Your task to perform on an android device: turn on wifi Image 0: 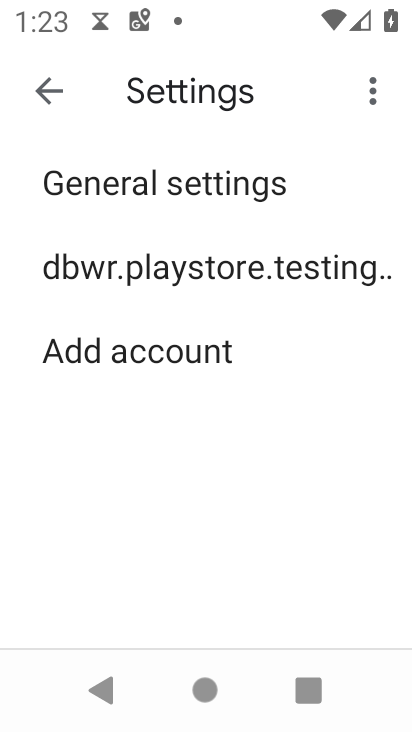
Step 0: press back button
Your task to perform on an android device: turn on wifi Image 1: 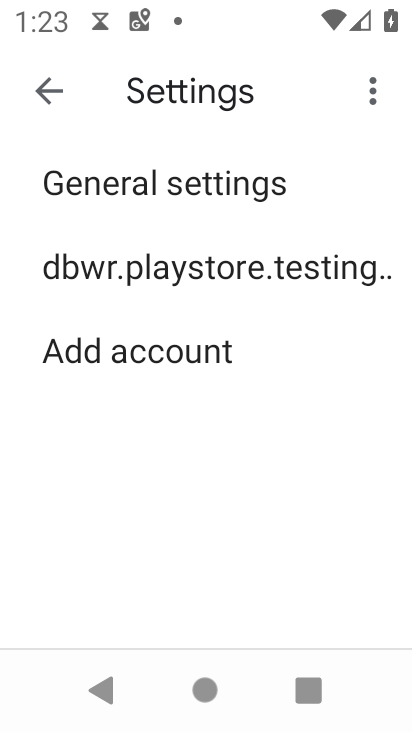
Step 1: press home button
Your task to perform on an android device: turn on wifi Image 2: 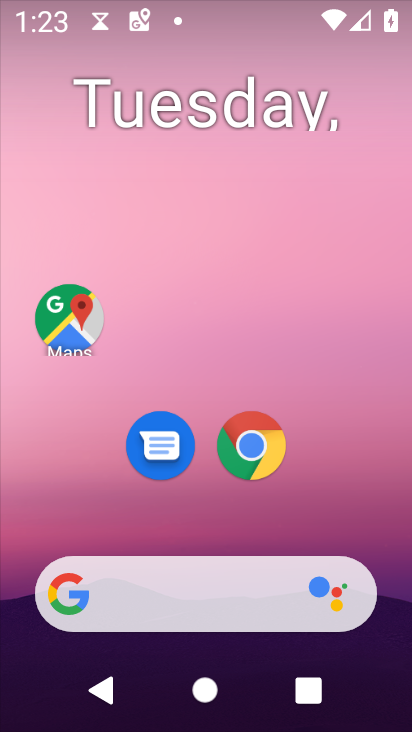
Step 2: drag from (277, 596) to (270, 25)
Your task to perform on an android device: turn on wifi Image 3: 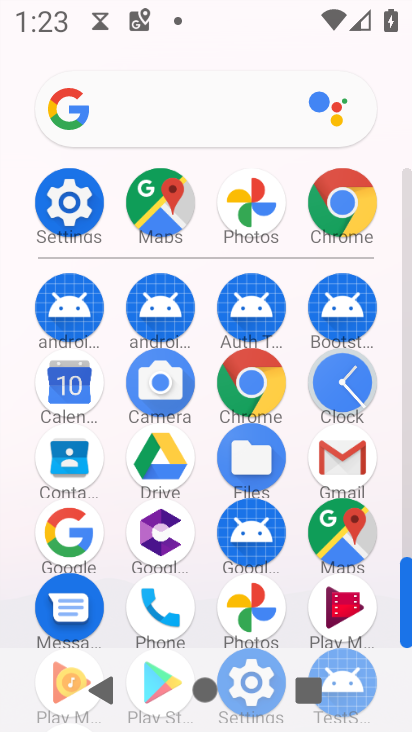
Step 3: drag from (209, 617) to (192, 335)
Your task to perform on an android device: turn on wifi Image 4: 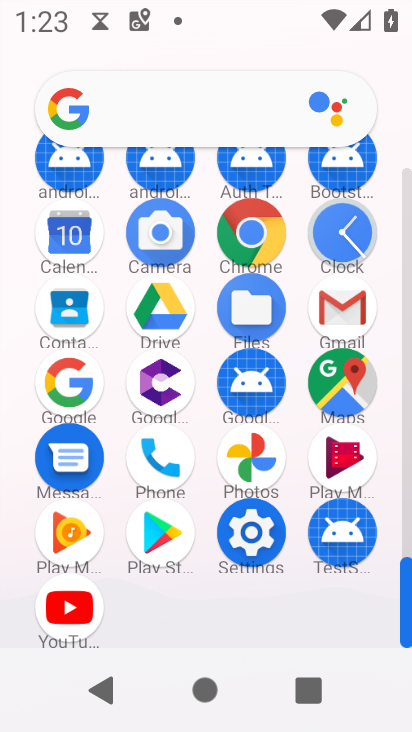
Step 4: click (252, 547)
Your task to perform on an android device: turn on wifi Image 5: 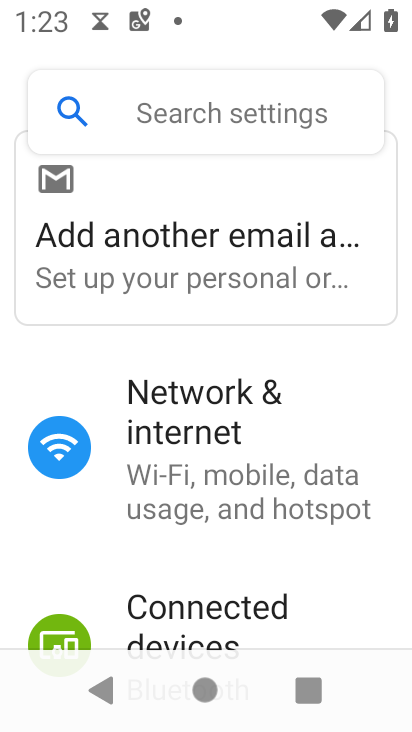
Step 5: click (262, 470)
Your task to perform on an android device: turn on wifi Image 6: 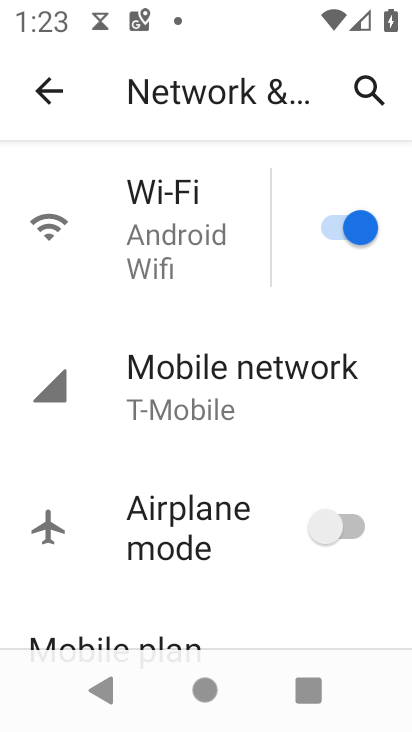
Step 6: click (221, 227)
Your task to perform on an android device: turn on wifi Image 7: 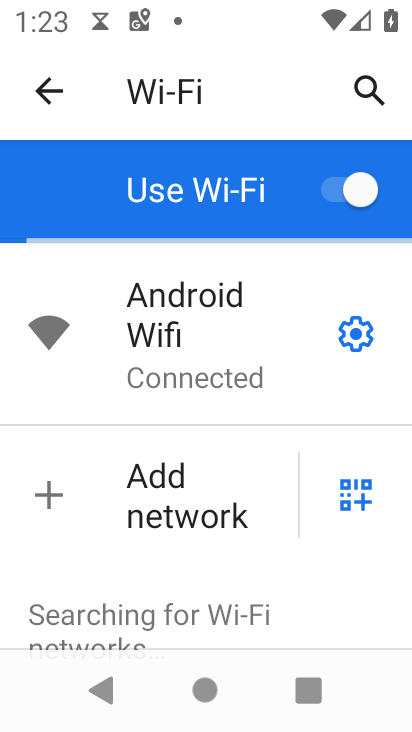
Step 7: task complete